Your task to perform on an android device: What's on my calendar tomorrow? Image 0: 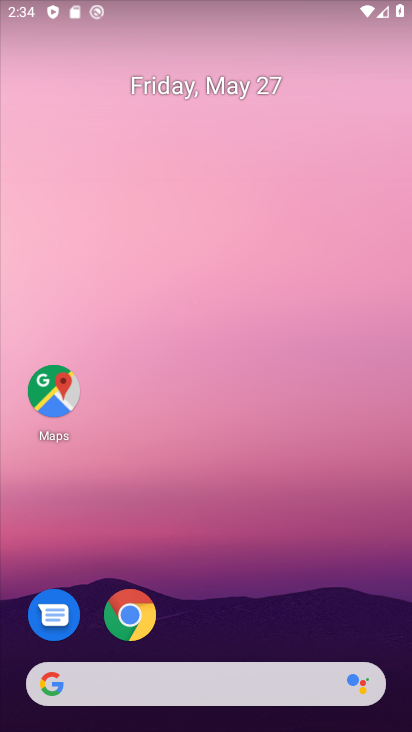
Step 0: press home button
Your task to perform on an android device: What's on my calendar tomorrow? Image 1: 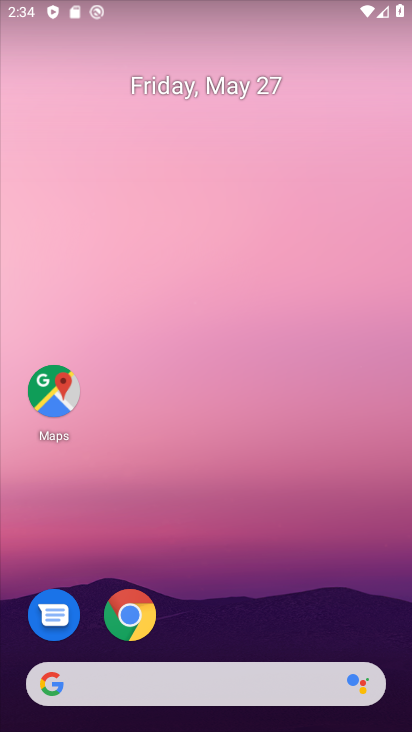
Step 1: drag from (289, 521) to (228, 12)
Your task to perform on an android device: What's on my calendar tomorrow? Image 2: 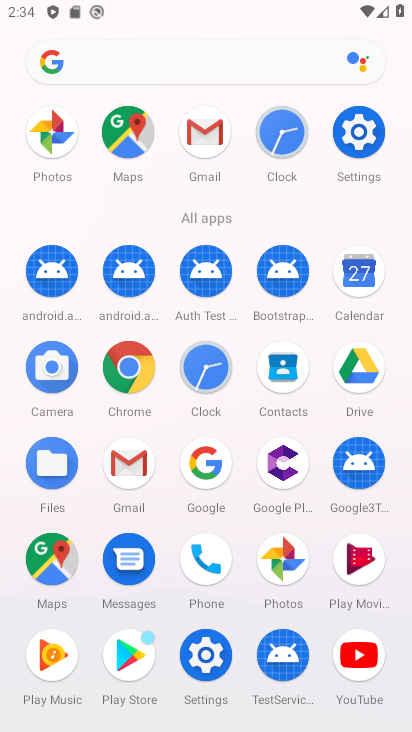
Step 2: click (362, 284)
Your task to perform on an android device: What's on my calendar tomorrow? Image 3: 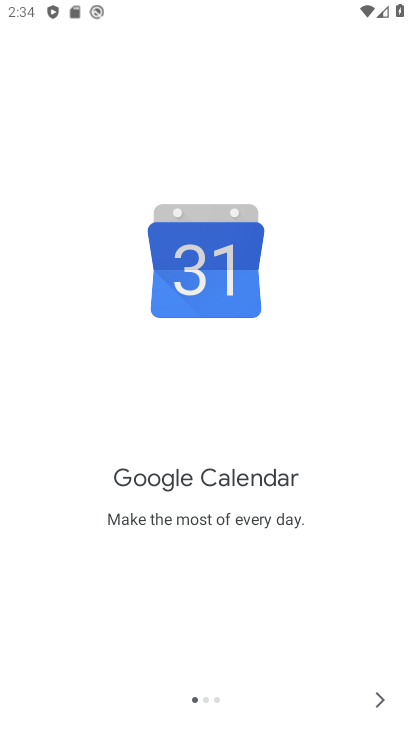
Step 3: click (390, 707)
Your task to perform on an android device: What's on my calendar tomorrow? Image 4: 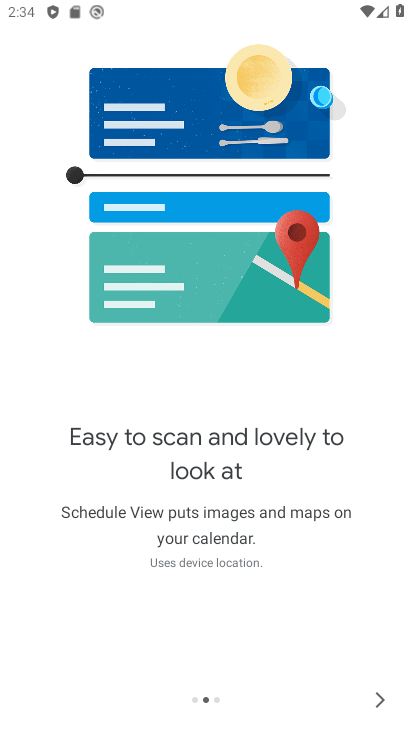
Step 4: click (387, 698)
Your task to perform on an android device: What's on my calendar tomorrow? Image 5: 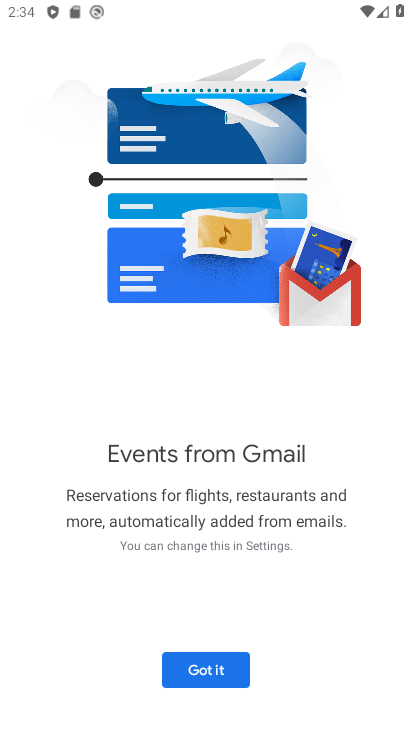
Step 5: click (235, 669)
Your task to perform on an android device: What's on my calendar tomorrow? Image 6: 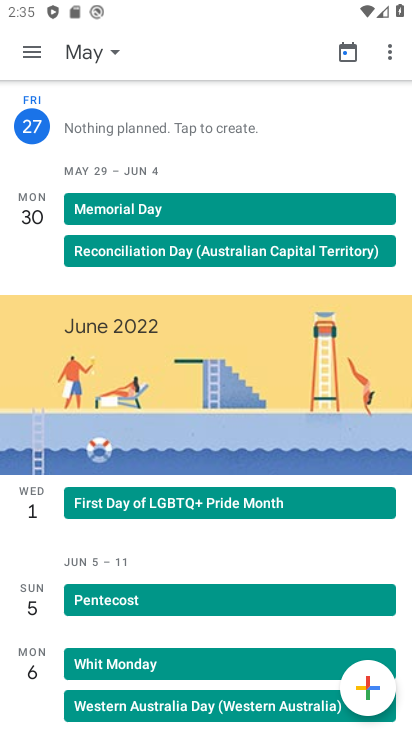
Step 6: click (106, 53)
Your task to perform on an android device: What's on my calendar tomorrow? Image 7: 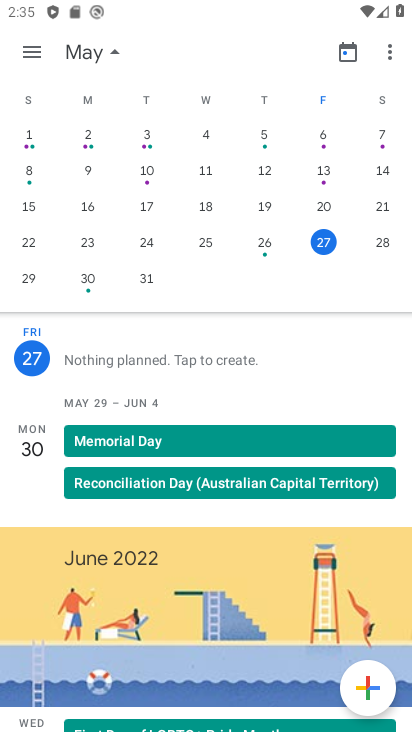
Step 7: click (381, 239)
Your task to perform on an android device: What's on my calendar tomorrow? Image 8: 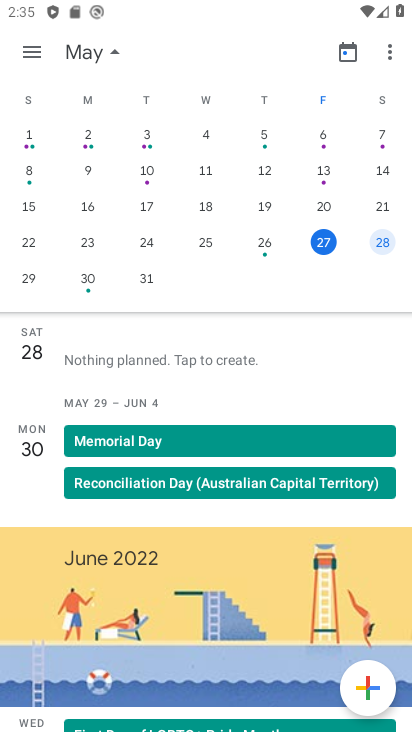
Step 8: task complete